Your task to perform on an android device: Open Google Image 0: 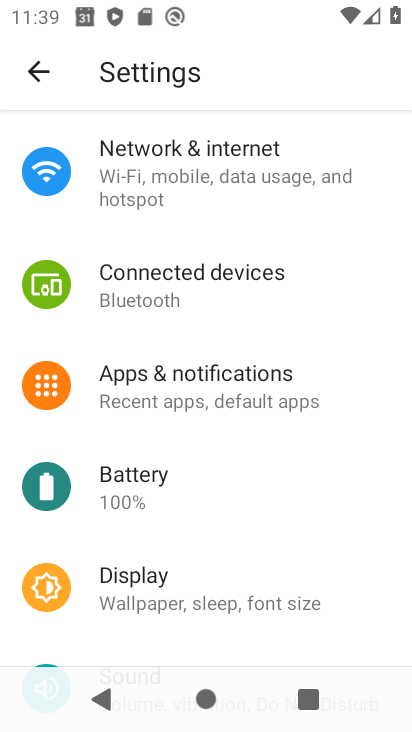
Step 0: press home button
Your task to perform on an android device: Open Google Image 1: 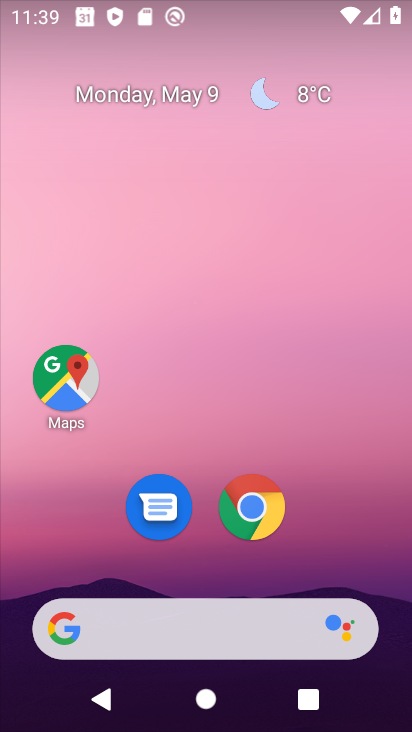
Step 1: drag from (304, 535) to (304, 266)
Your task to perform on an android device: Open Google Image 2: 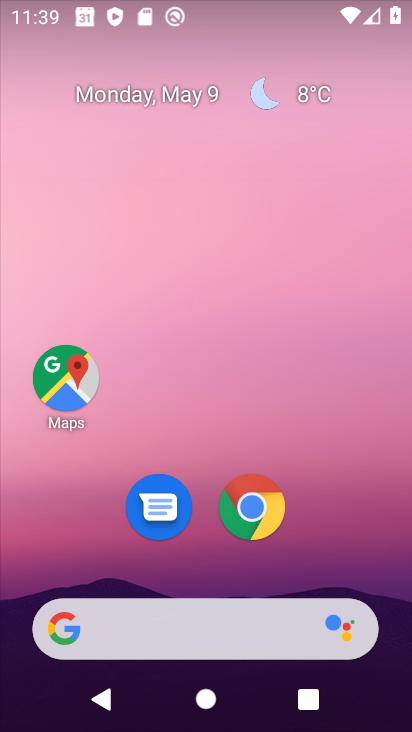
Step 2: drag from (317, 529) to (307, 196)
Your task to perform on an android device: Open Google Image 3: 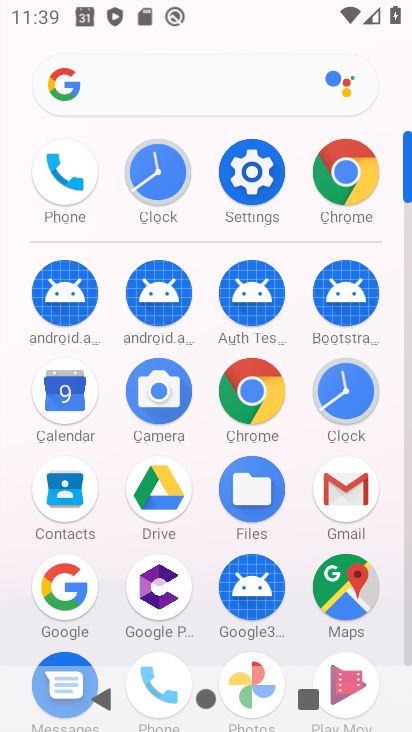
Step 3: click (45, 591)
Your task to perform on an android device: Open Google Image 4: 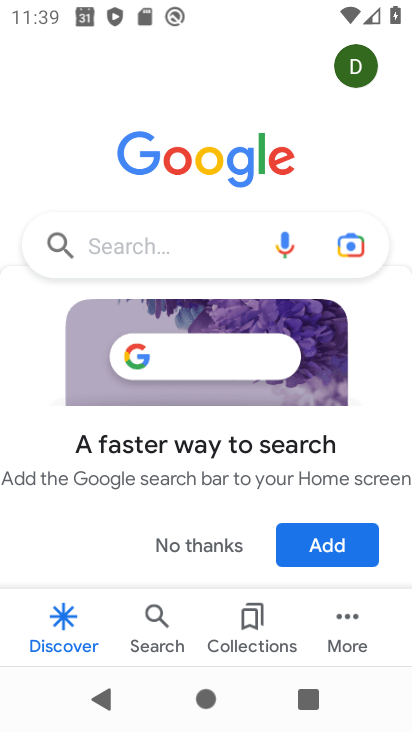
Step 4: task complete